Your task to perform on an android device: uninstall "Microsoft Excel" Image 0: 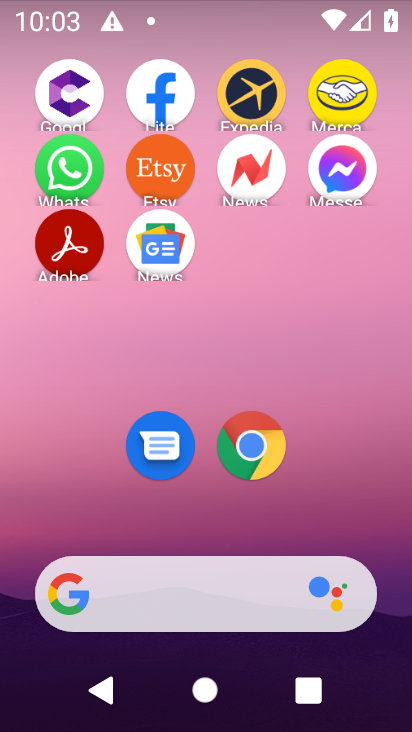
Step 0: drag from (386, 550) to (266, 131)
Your task to perform on an android device: uninstall "Microsoft Excel" Image 1: 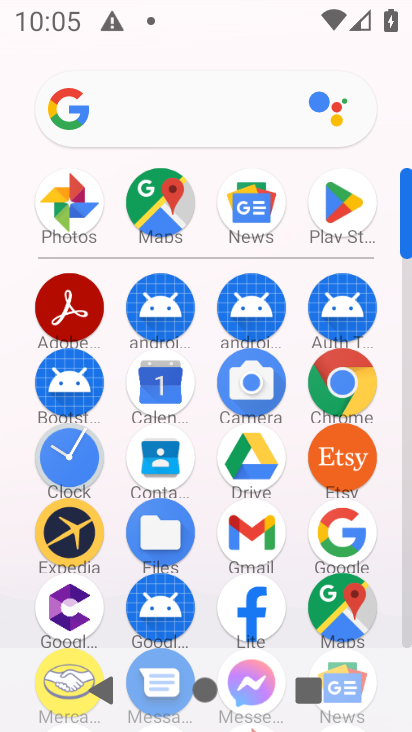
Step 1: click (323, 194)
Your task to perform on an android device: uninstall "Microsoft Excel" Image 2: 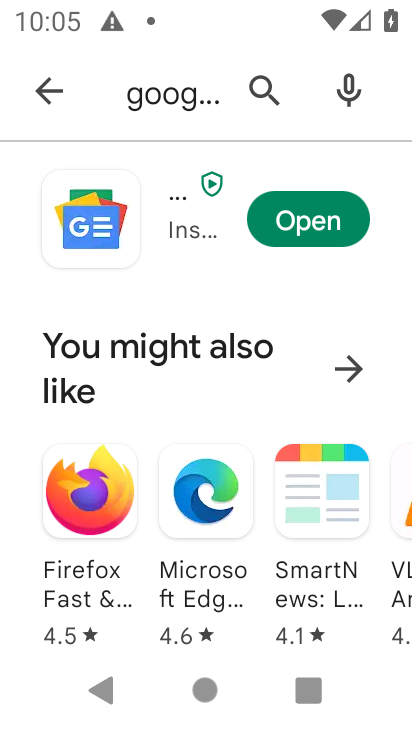
Step 2: press back button
Your task to perform on an android device: uninstall "Microsoft Excel" Image 3: 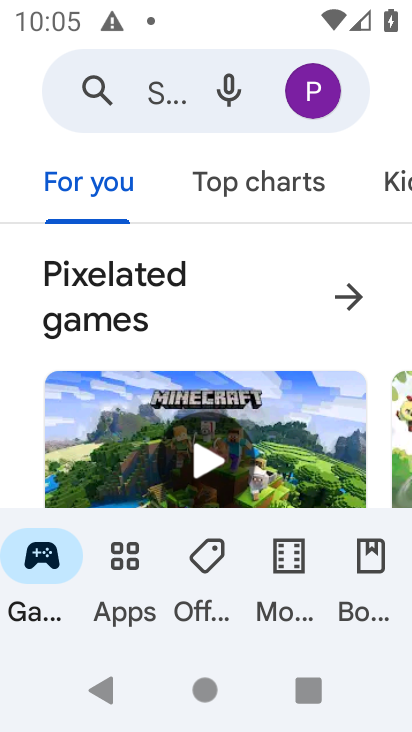
Step 3: click (117, 81)
Your task to perform on an android device: uninstall "Microsoft Excel" Image 4: 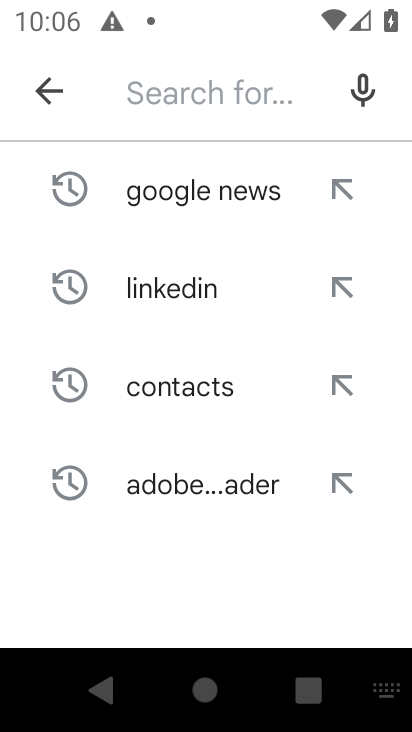
Step 4: type "Microsoft Excel"
Your task to perform on an android device: uninstall "Microsoft Excel" Image 5: 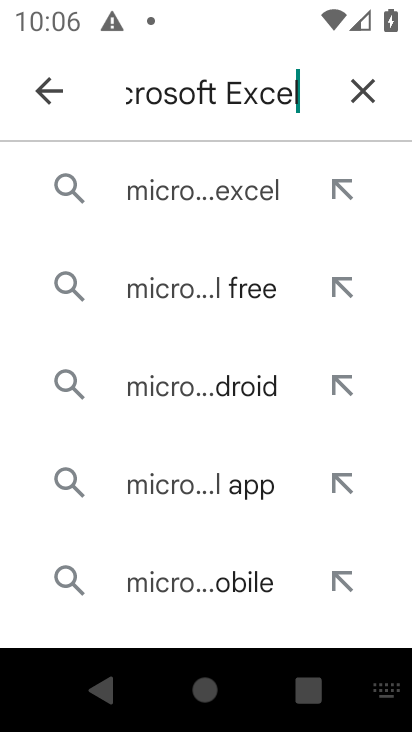
Step 5: click (212, 200)
Your task to perform on an android device: uninstall "Microsoft Excel" Image 6: 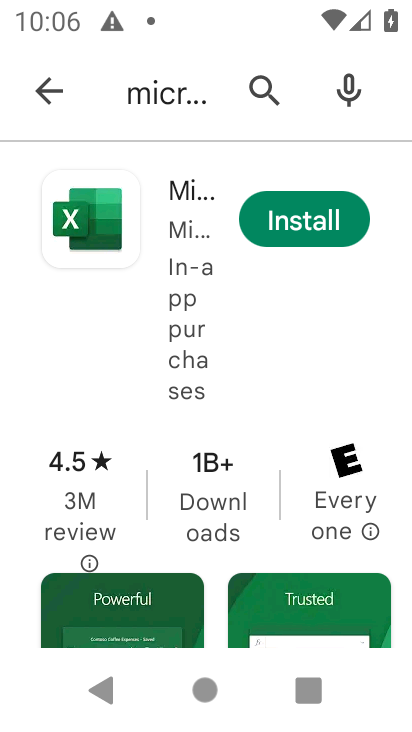
Step 6: task complete